Your task to perform on an android device: When is my next appointment? Image 0: 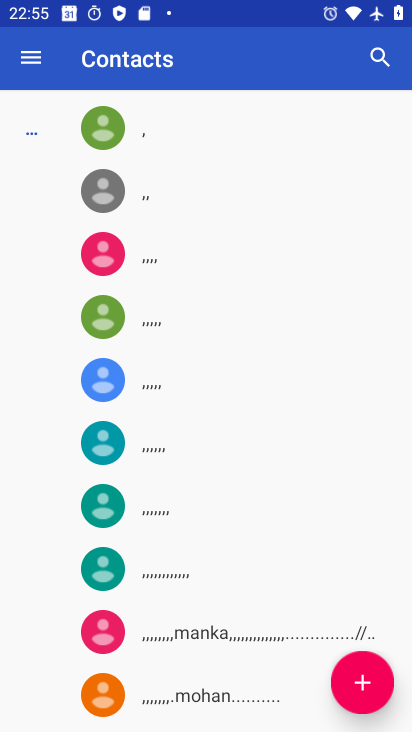
Step 0: press home button
Your task to perform on an android device: When is my next appointment? Image 1: 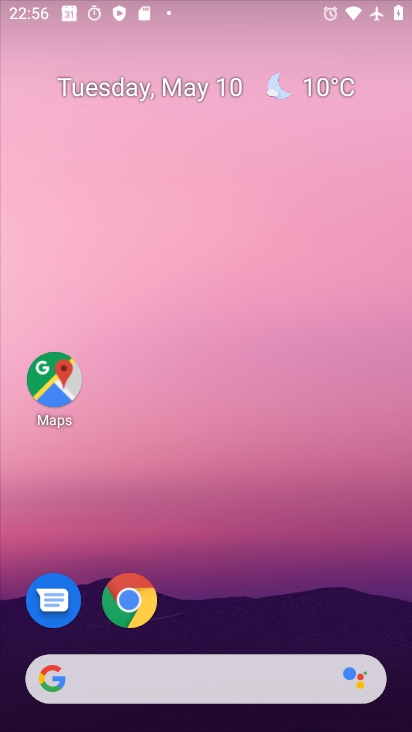
Step 1: drag from (314, 535) to (364, 118)
Your task to perform on an android device: When is my next appointment? Image 2: 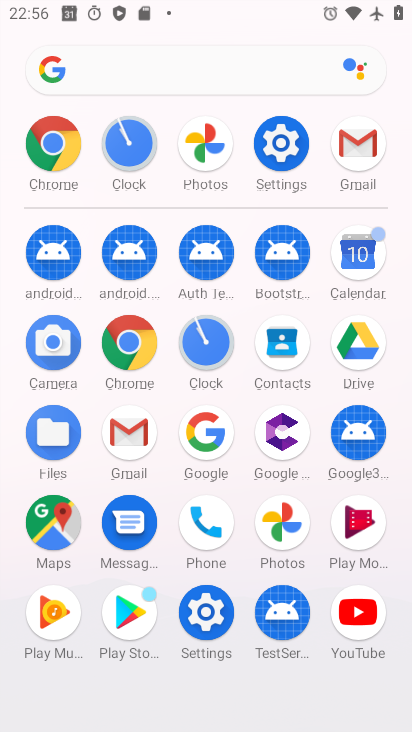
Step 2: click (362, 265)
Your task to perform on an android device: When is my next appointment? Image 3: 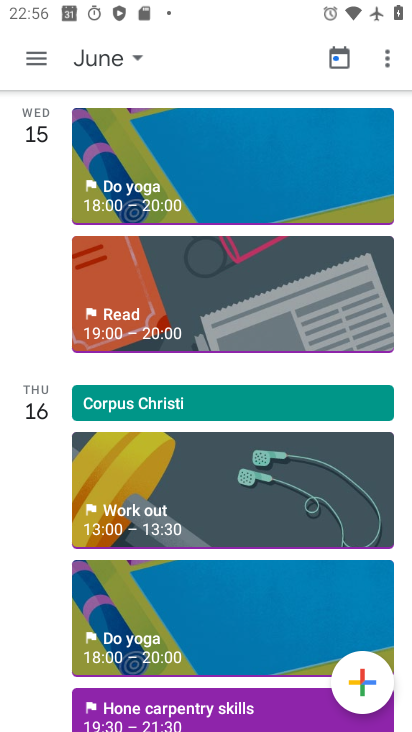
Step 3: click (93, 66)
Your task to perform on an android device: When is my next appointment? Image 4: 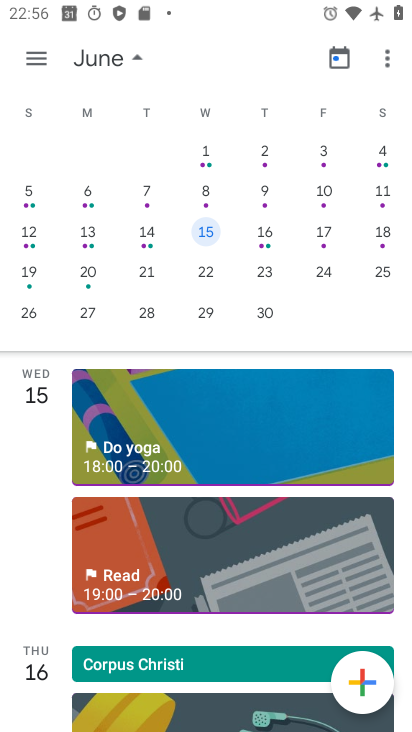
Step 4: click (268, 235)
Your task to perform on an android device: When is my next appointment? Image 5: 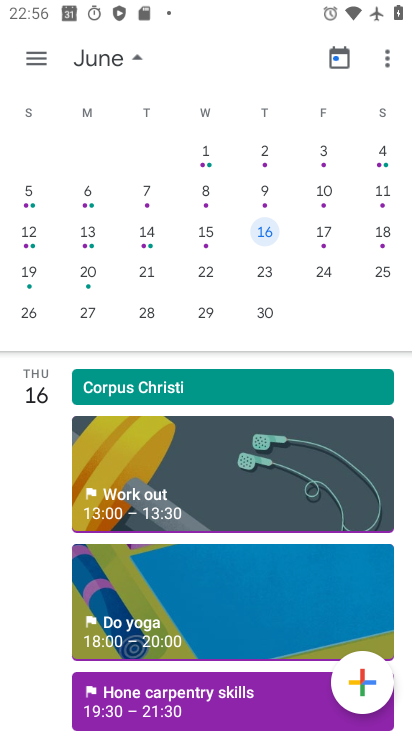
Step 5: task complete